Your task to perform on an android device: turn off notifications in google photos Image 0: 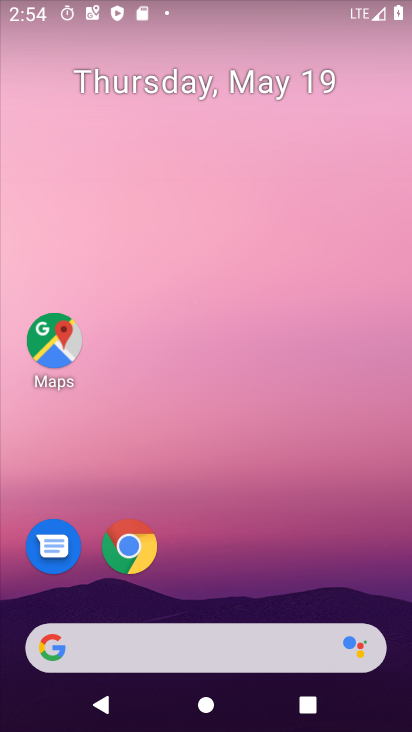
Step 0: drag from (175, 614) to (337, 106)
Your task to perform on an android device: turn off notifications in google photos Image 1: 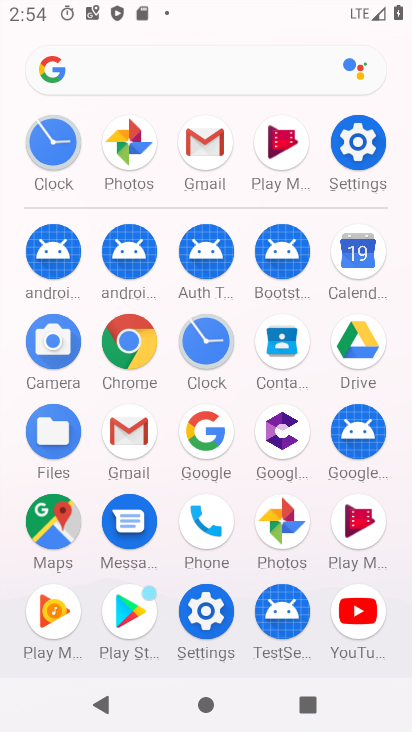
Step 1: click (131, 150)
Your task to perform on an android device: turn off notifications in google photos Image 2: 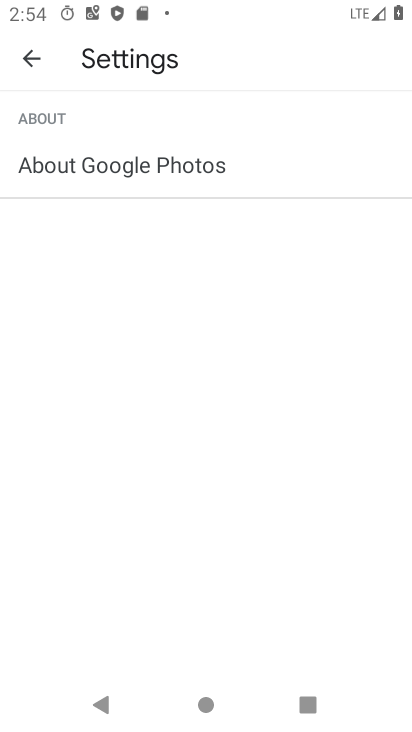
Step 2: click (43, 53)
Your task to perform on an android device: turn off notifications in google photos Image 3: 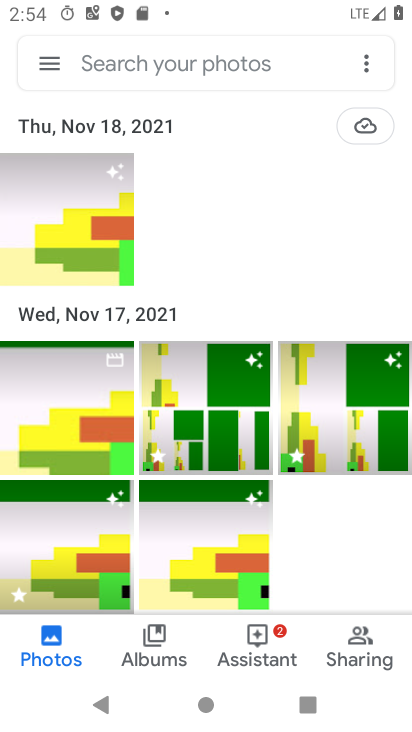
Step 3: click (40, 63)
Your task to perform on an android device: turn off notifications in google photos Image 4: 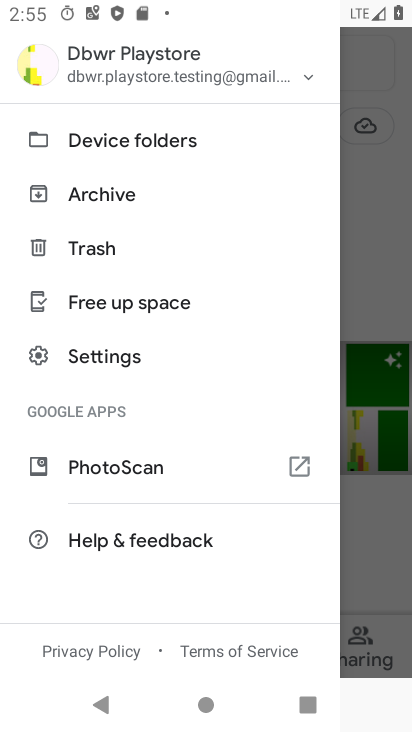
Step 4: click (108, 361)
Your task to perform on an android device: turn off notifications in google photos Image 5: 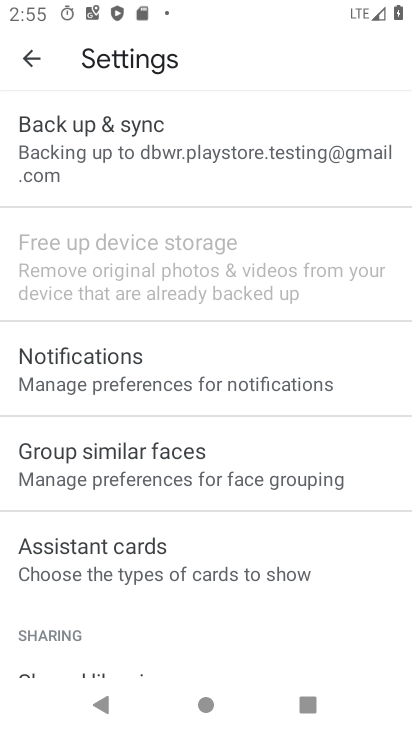
Step 5: click (108, 361)
Your task to perform on an android device: turn off notifications in google photos Image 6: 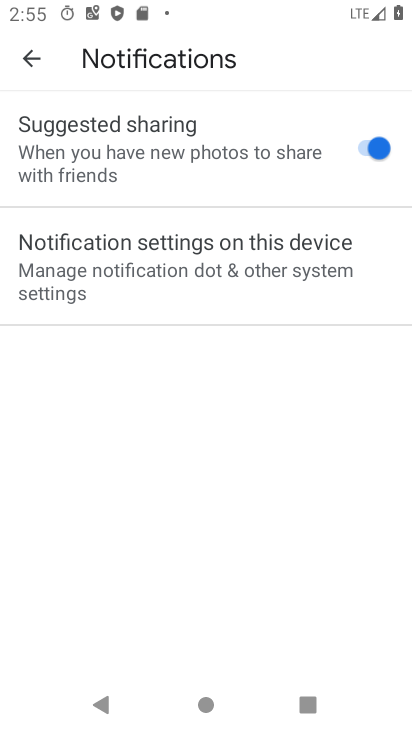
Step 6: click (275, 235)
Your task to perform on an android device: turn off notifications in google photos Image 7: 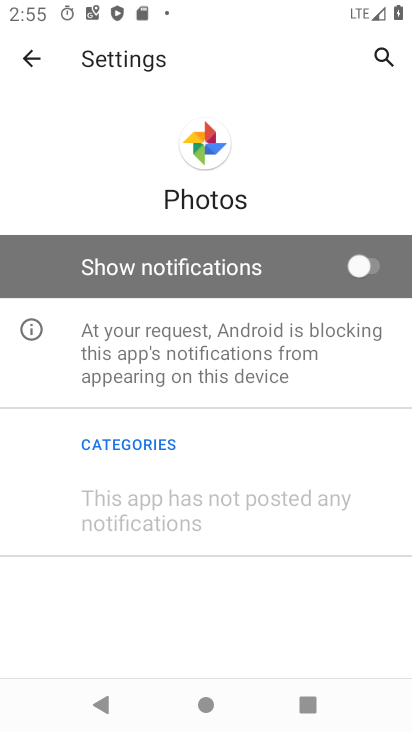
Step 7: task complete